Your task to perform on an android device: toggle javascript in the chrome app Image 0: 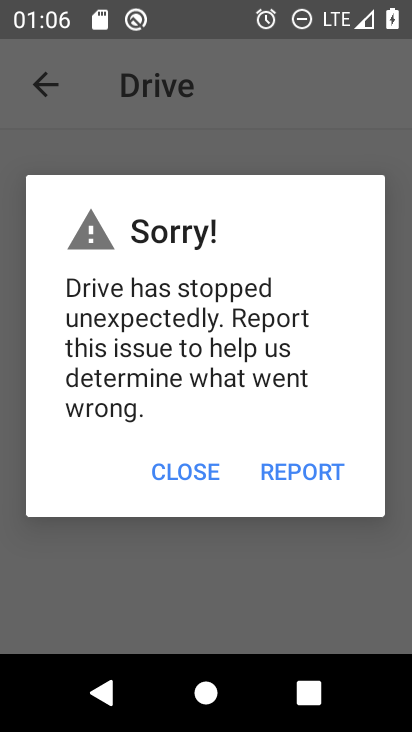
Step 0: press home button
Your task to perform on an android device: toggle javascript in the chrome app Image 1: 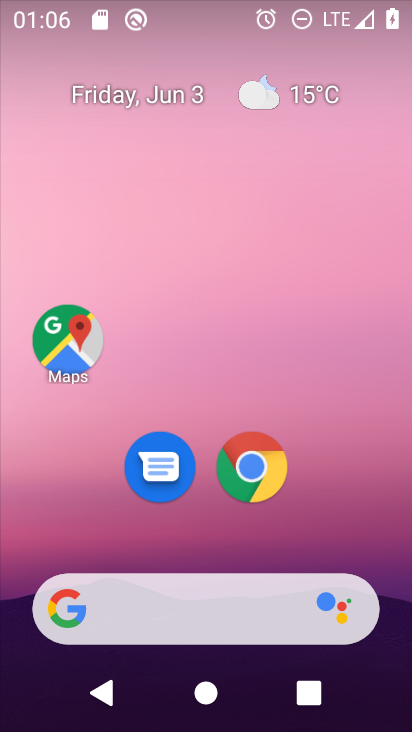
Step 1: click (253, 467)
Your task to perform on an android device: toggle javascript in the chrome app Image 2: 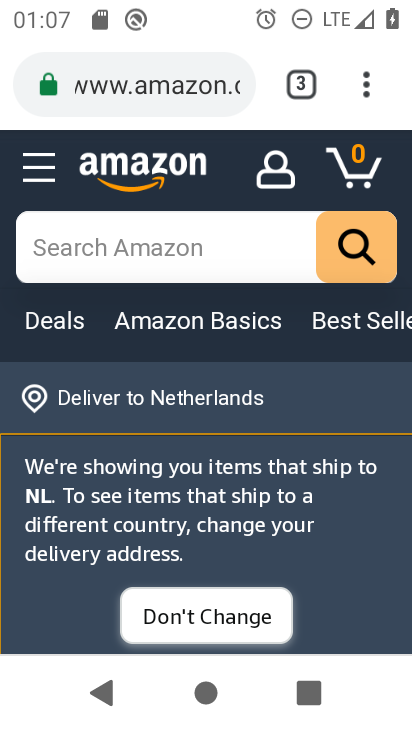
Step 2: click (365, 90)
Your task to perform on an android device: toggle javascript in the chrome app Image 3: 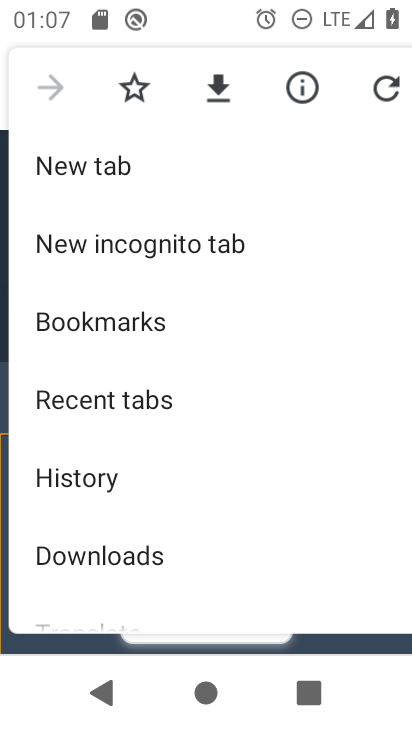
Step 3: drag from (226, 541) to (296, 143)
Your task to perform on an android device: toggle javascript in the chrome app Image 4: 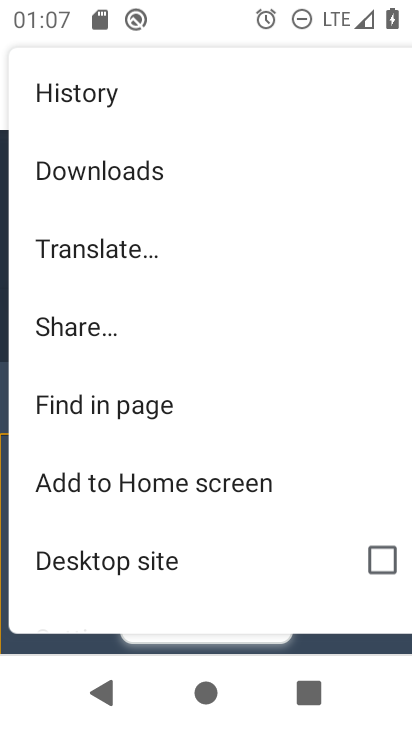
Step 4: drag from (277, 562) to (287, 196)
Your task to perform on an android device: toggle javascript in the chrome app Image 5: 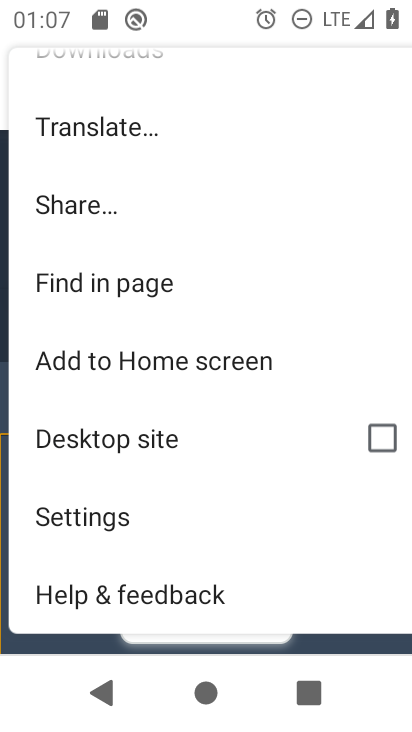
Step 5: click (95, 509)
Your task to perform on an android device: toggle javascript in the chrome app Image 6: 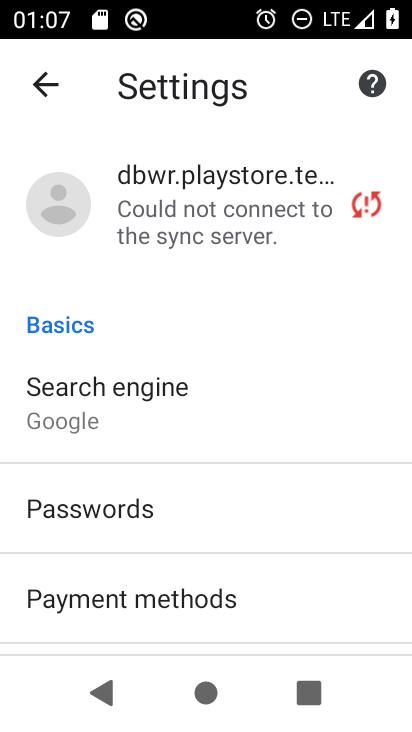
Step 6: drag from (268, 603) to (272, 120)
Your task to perform on an android device: toggle javascript in the chrome app Image 7: 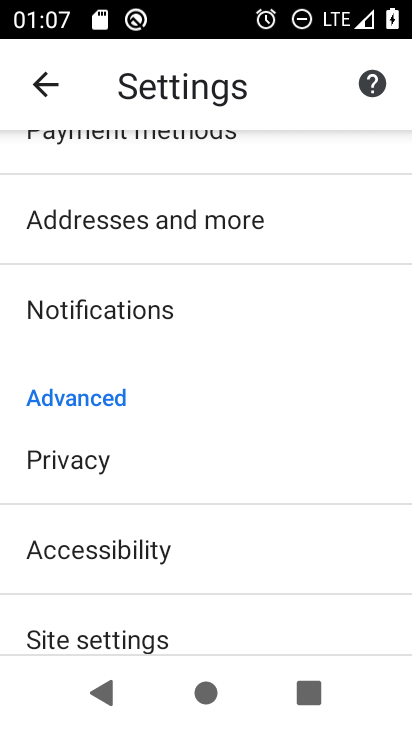
Step 7: drag from (237, 619) to (278, 219)
Your task to perform on an android device: toggle javascript in the chrome app Image 8: 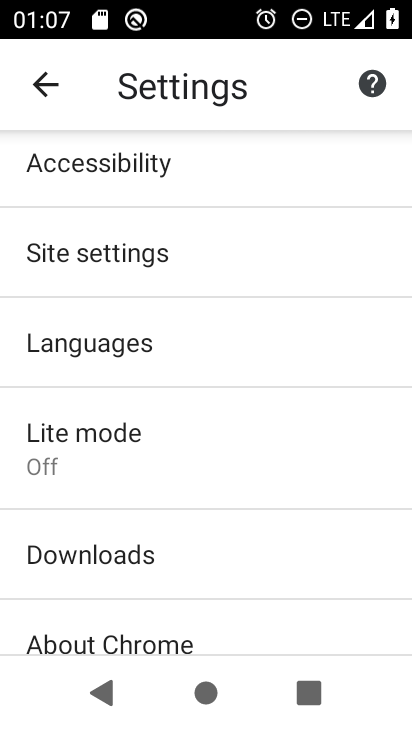
Step 8: click (98, 250)
Your task to perform on an android device: toggle javascript in the chrome app Image 9: 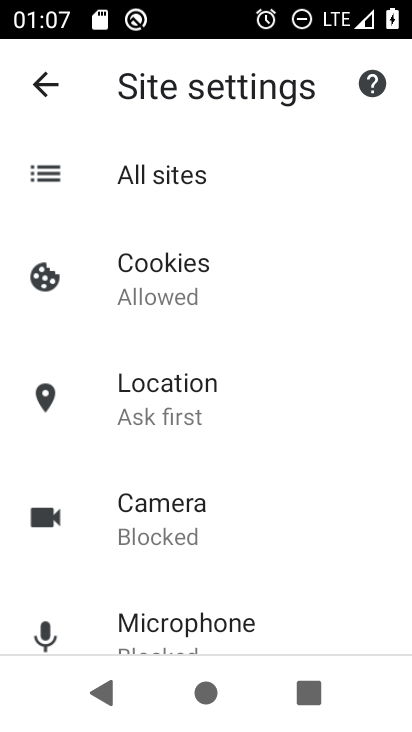
Step 9: drag from (279, 637) to (296, 212)
Your task to perform on an android device: toggle javascript in the chrome app Image 10: 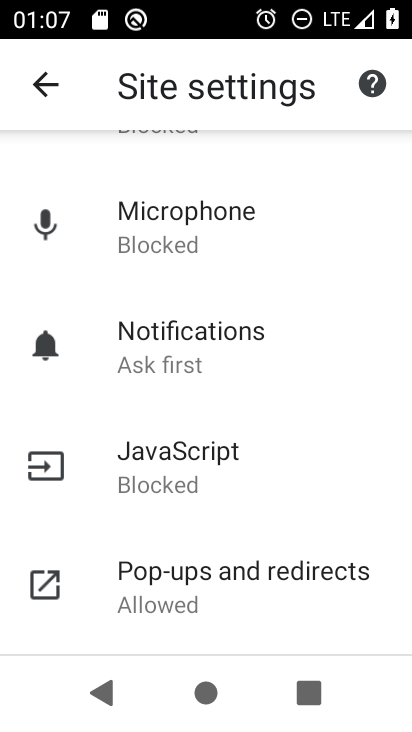
Step 10: click (147, 477)
Your task to perform on an android device: toggle javascript in the chrome app Image 11: 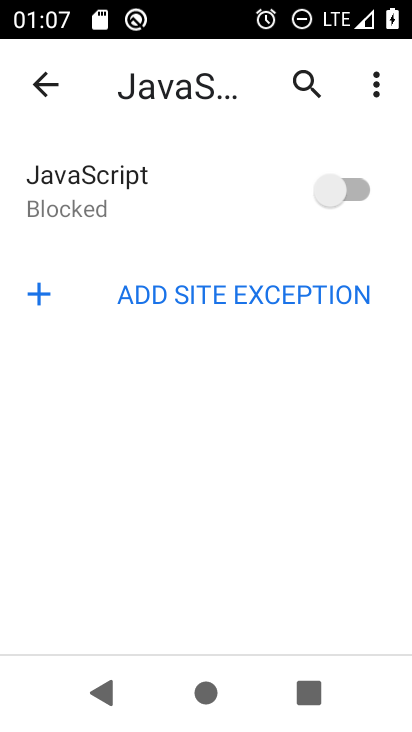
Step 11: click (359, 198)
Your task to perform on an android device: toggle javascript in the chrome app Image 12: 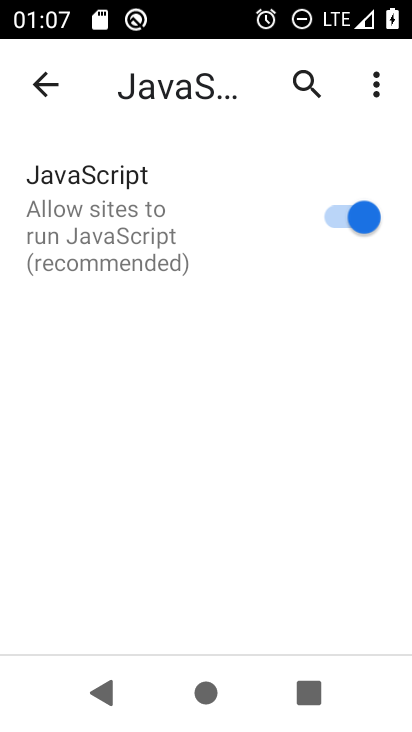
Step 12: task complete